Your task to perform on an android device: Check the weather Image 0: 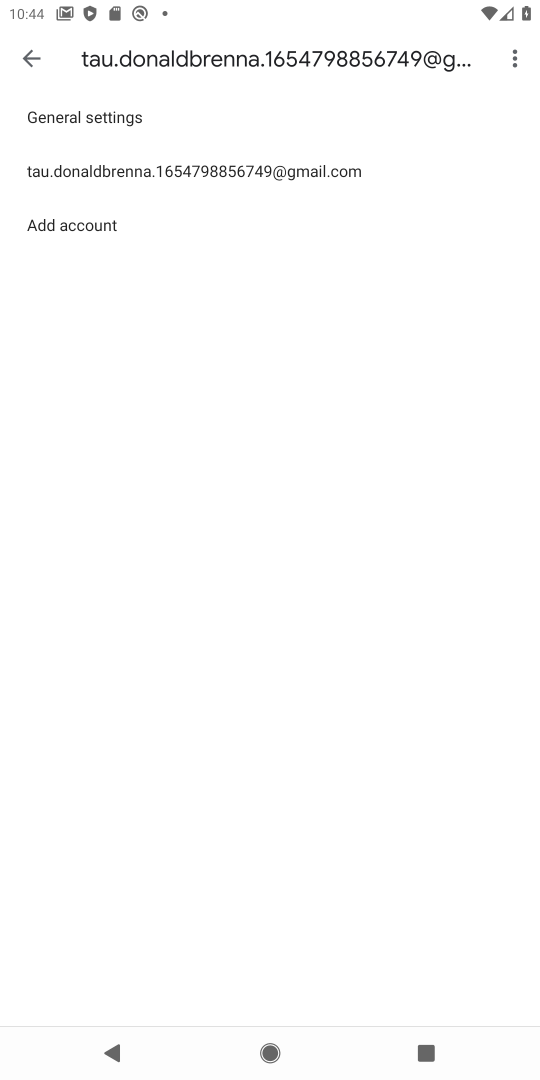
Step 0: press home button
Your task to perform on an android device: Check the weather Image 1: 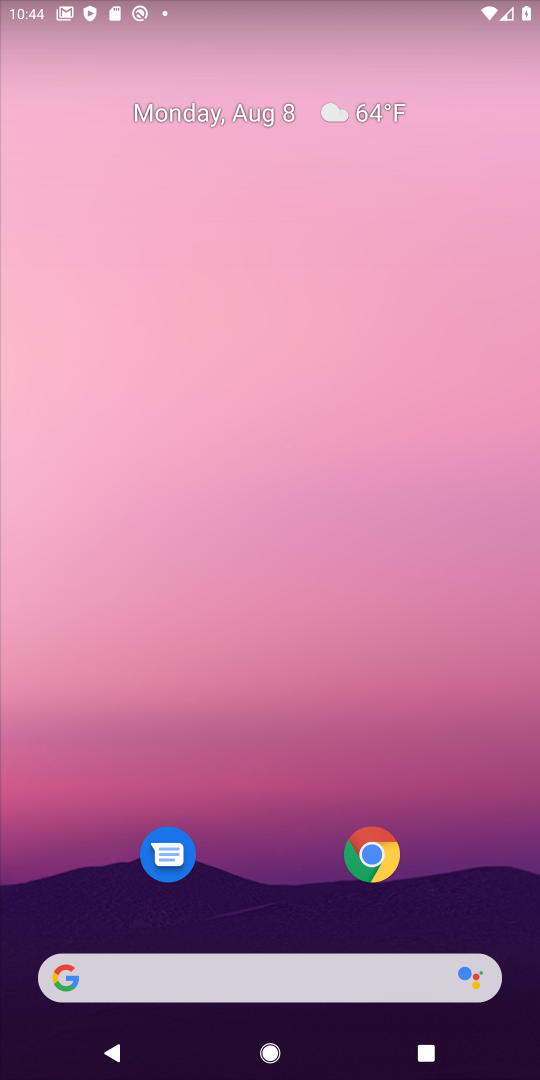
Step 1: click (395, 96)
Your task to perform on an android device: Check the weather Image 2: 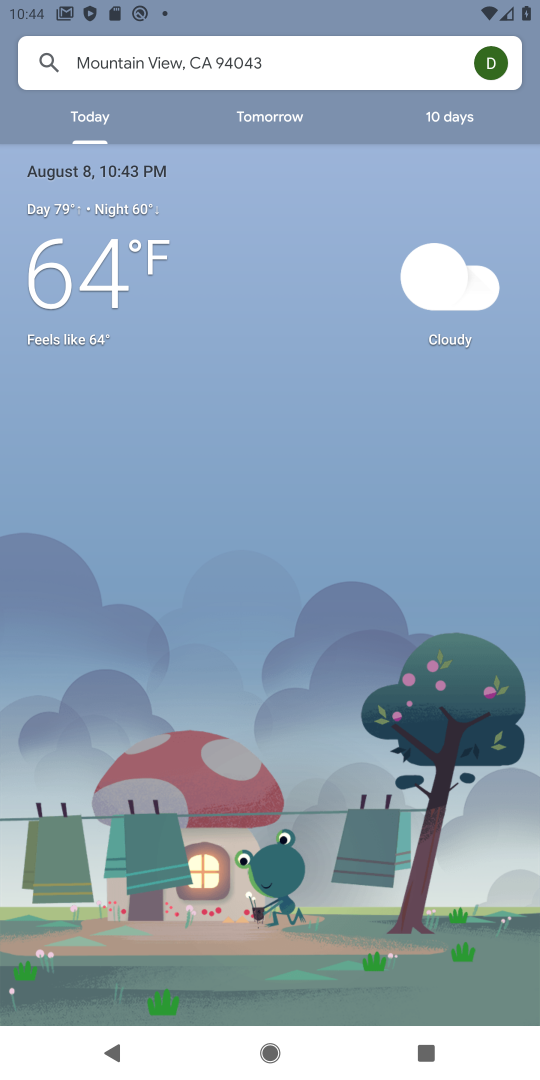
Step 2: task complete